Your task to perform on an android device: Check the settings for the Facebook app Image 0: 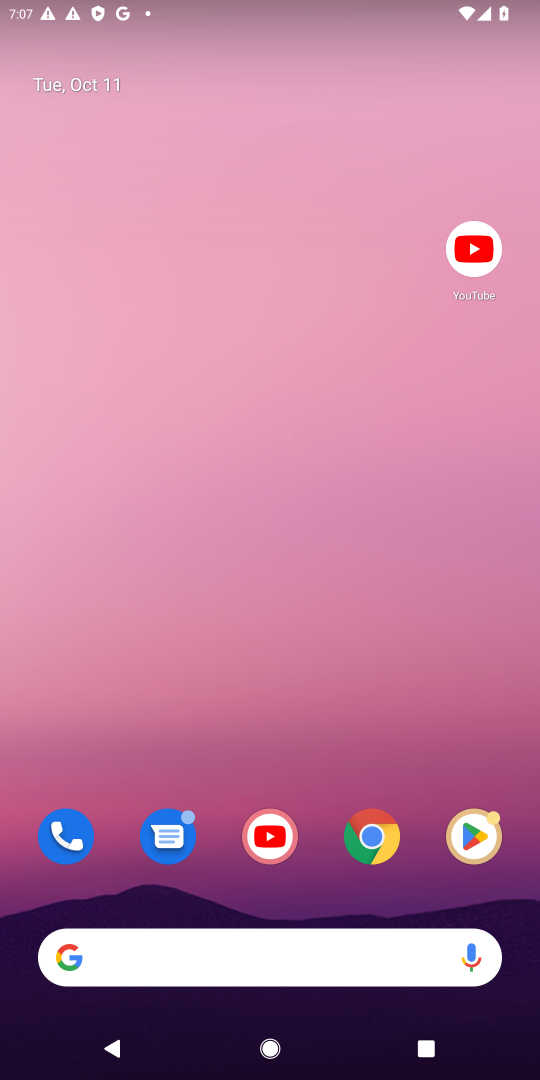
Step 0: drag from (378, 831) to (446, 84)
Your task to perform on an android device: Check the settings for the Facebook app Image 1: 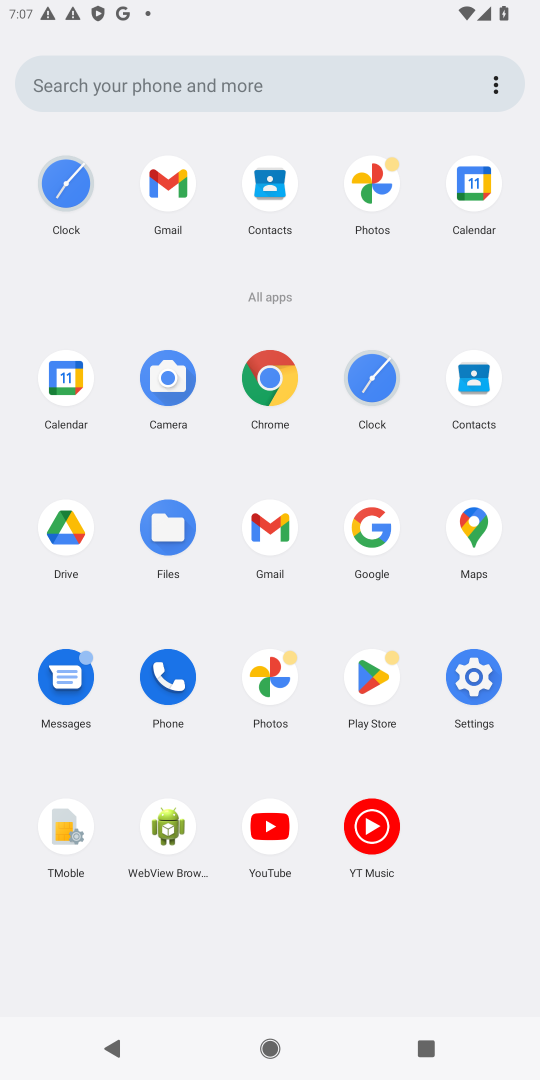
Step 1: task complete